Your task to perform on an android device: change timer sound Image 0: 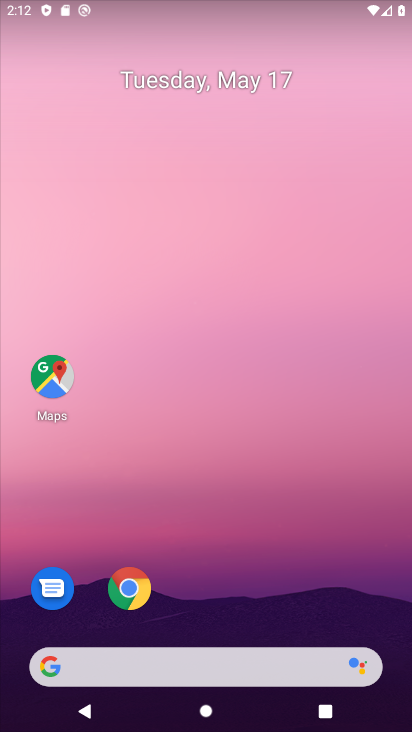
Step 0: drag from (254, 448) to (198, 113)
Your task to perform on an android device: change timer sound Image 1: 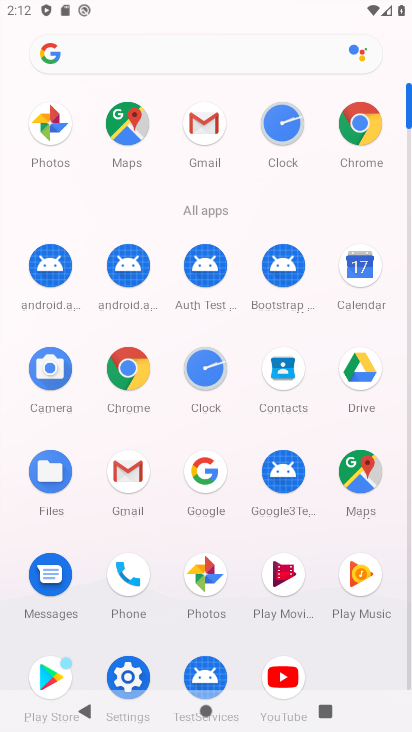
Step 1: click (211, 359)
Your task to perform on an android device: change timer sound Image 2: 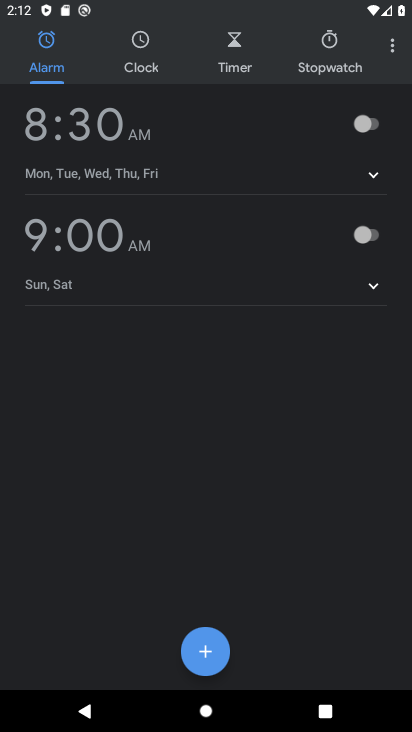
Step 2: click (384, 55)
Your task to perform on an android device: change timer sound Image 3: 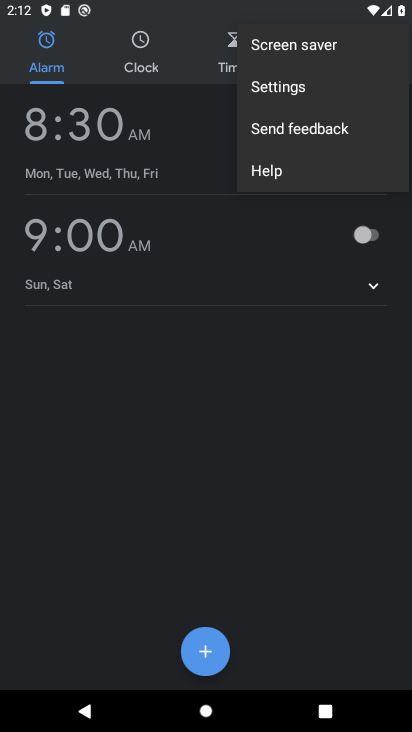
Step 3: click (321, 86)
Your task to perform on an android device: change timer sound Image 4: 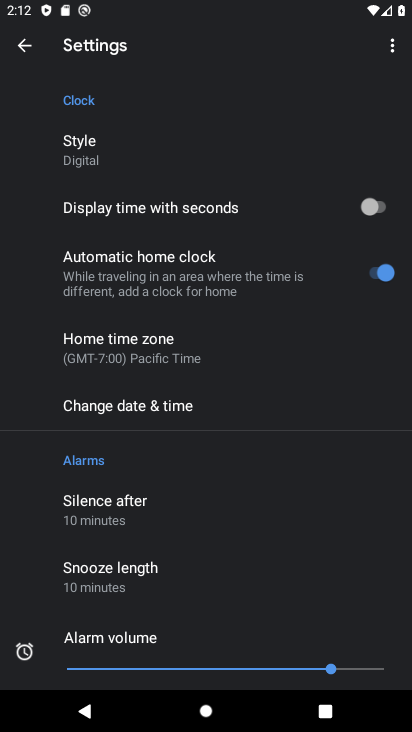
Step 4: drag from (253, 579) to (192, 122)
Your task to perform on an android device: change timer sound Image 5: 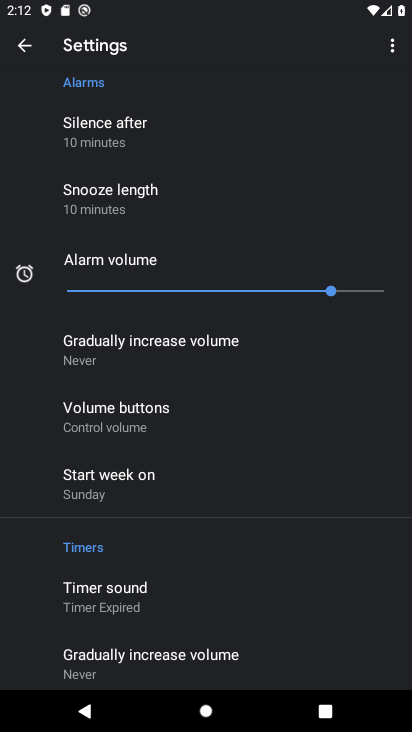
Step 5: click (162, 591)
Your task to perform on an android device: change timer sound Image 6: 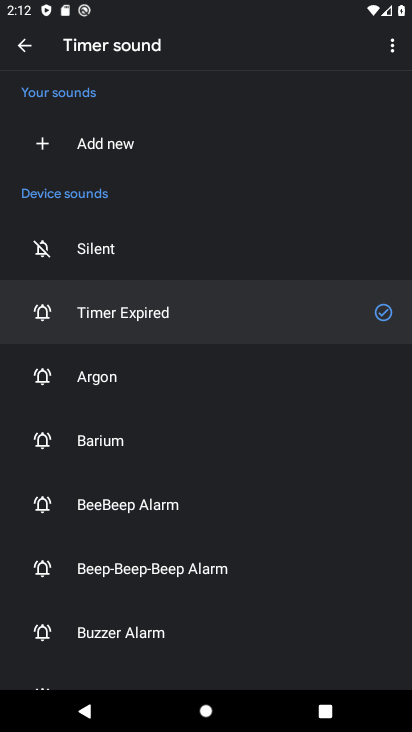
Step 6: click (172, 374)
Your task to perform on an android device: change timer sound Image 7: 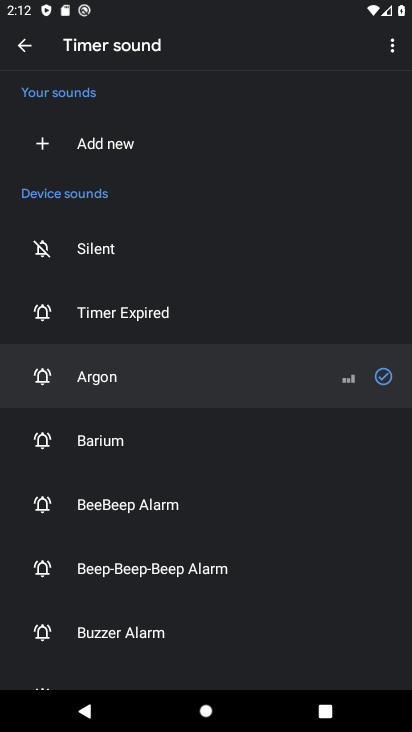
Step 7: task complete